Your task to perform on an android device: Open internet settings Image 0: 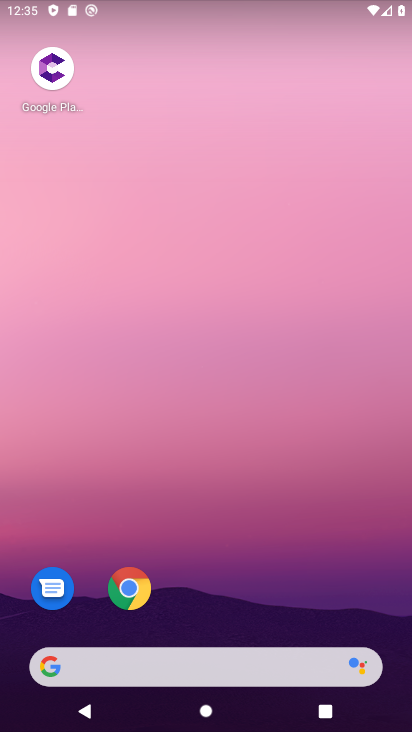
Step 0: drag from (239, 592) to (238, 13)
Your task to perform on an android device: Open internet settings Image 1: 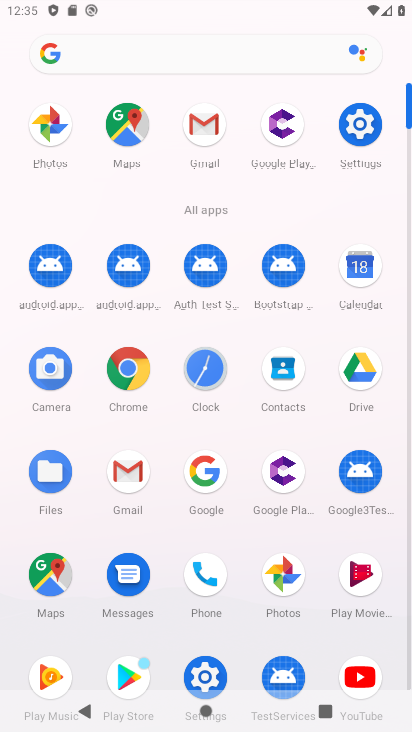
Step 1: click (360, 122)
Your task to perform on an android device: Open internet settings Image 2: 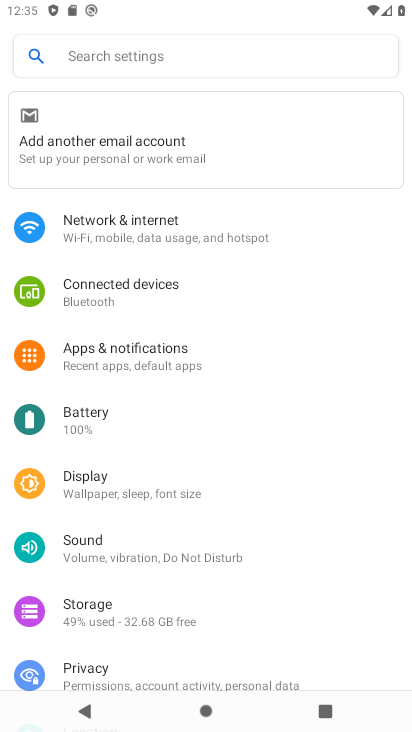
Step 2: click (151, 224)
Your task to perform on an android device: Open internet settings Image 3: 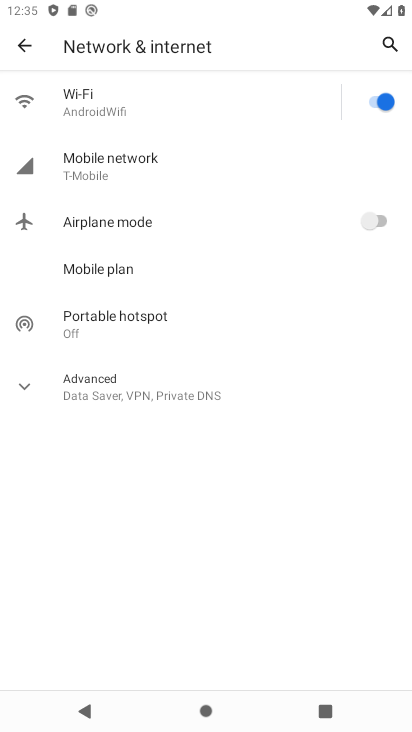
Step 3: click (83, 163)
Your task to perform on an android device: Open internet settings Image 4: 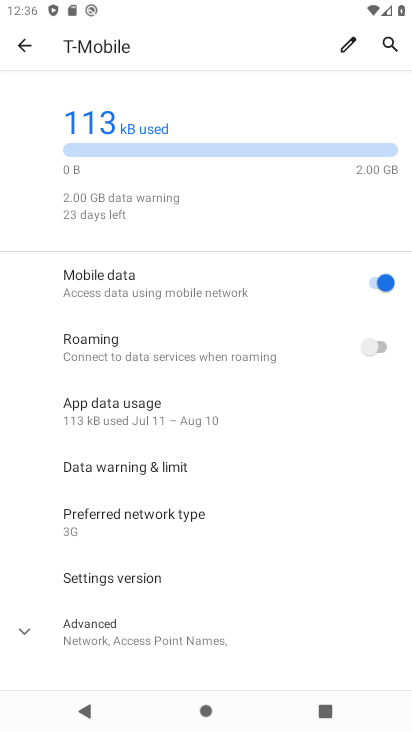
Step 4: task complete